Your task to perform on an android device: turn on javascript in the chrome app Image 0: 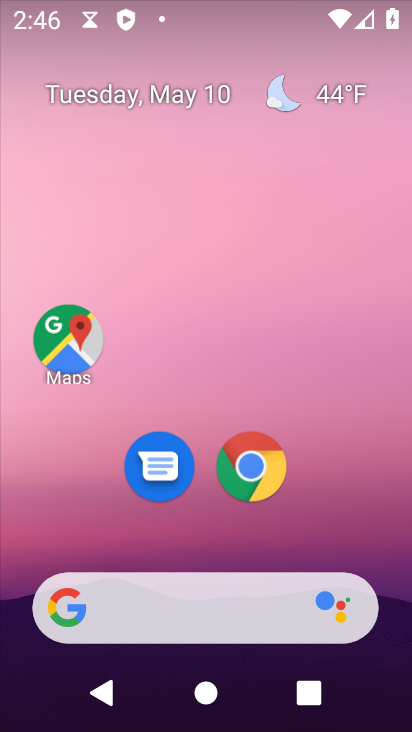
Step 0: click (252, 462)
Your task to perform on an android device: turn on javascript in the chrome app Image 1: 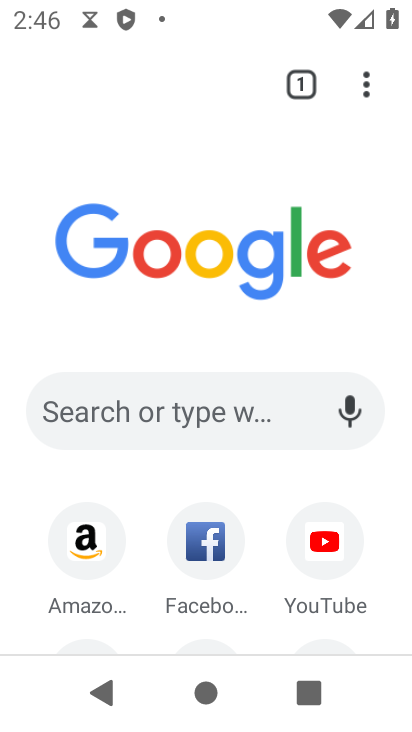
Step 1: click (368, 84)
Your task to perform on an android device: turn on javascript in the chrome app Image 2: 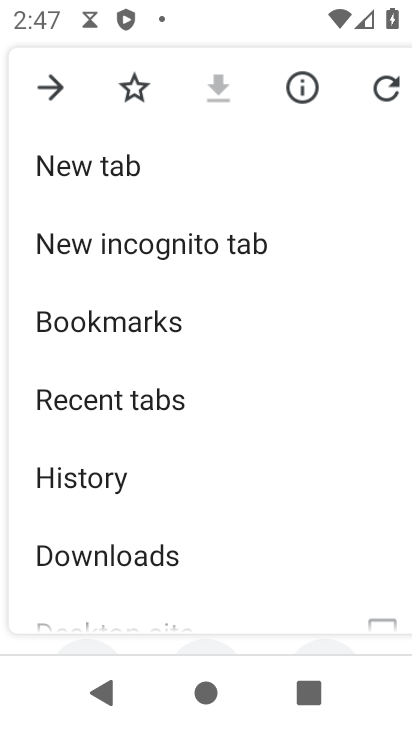
Step 2: drag from (143, 517) to (182, 336)
Your task to perform on an android device: turn on javascript in the chrome app Image 3: 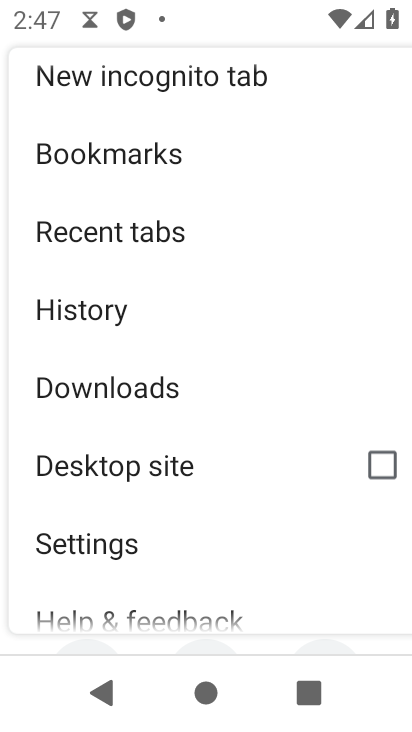
Step 3: drag from (116, 511) to (186, 332)
Your task to perform on an android device: turn on javascript in the chrome app Image 4: 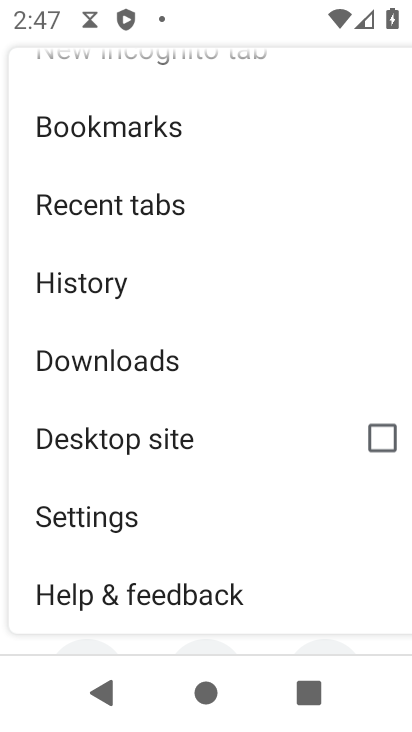
Step 4: click (86, 516)
Your task to perform on an android device: turn on javascript in the chrome app Image 5: 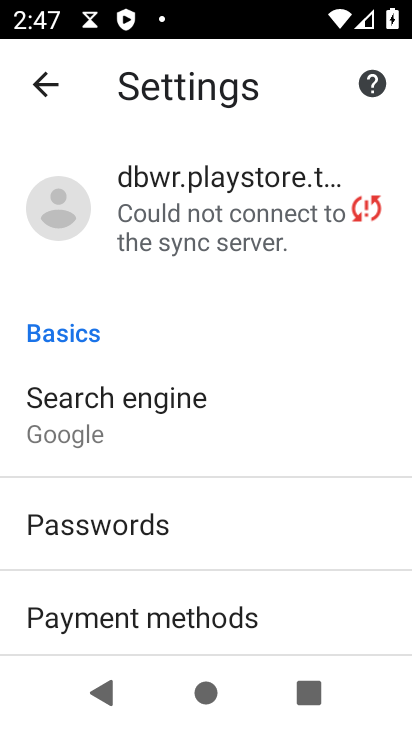
Step 5: drag from (163, 599) to (265, 424)
Your task to perform on an android device: turn on javascript in the chrome app Image 6: 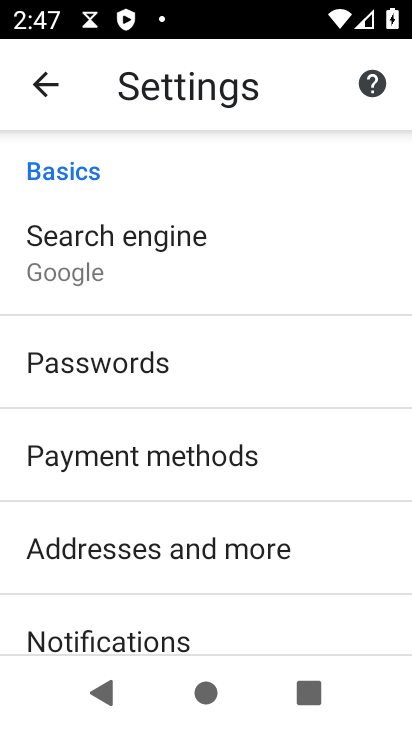
Step 6: drag from (165, 584) to (277, 407)
Your task to perform on an android device: turn on javascript in the chrome app Image 7: 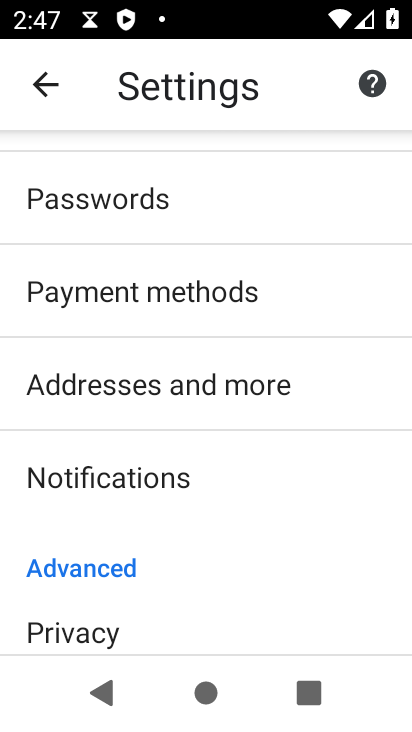
Step 7: drag from (101, 544) to (169, 417)
Your task to perform on an android device: turn on javascript in the chrome app Image 8: 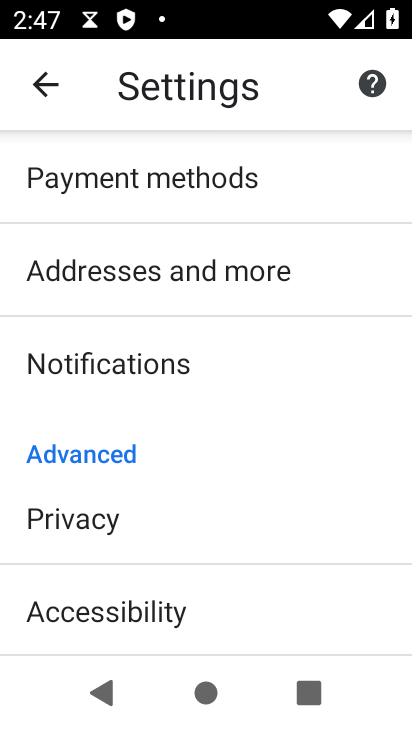
Step 8: drag from (103, 571) to (220, 395)
Your task to perform on an android device: turn on javascript in the chrome app Image 9: 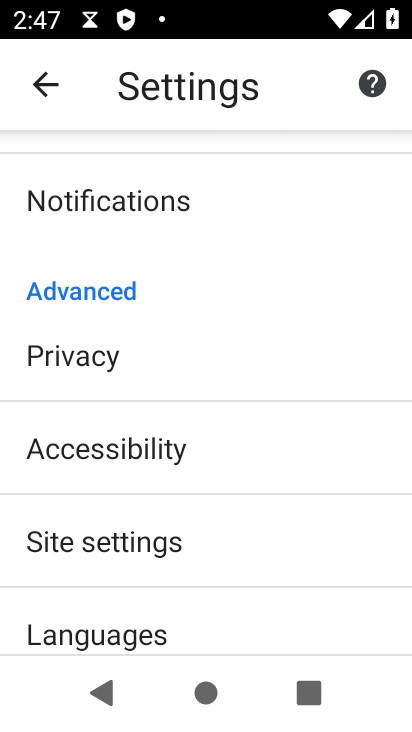
Step 9: click (106, 533)
Your task to perform on an android device: turn on javascript in the chrome app Image 10: 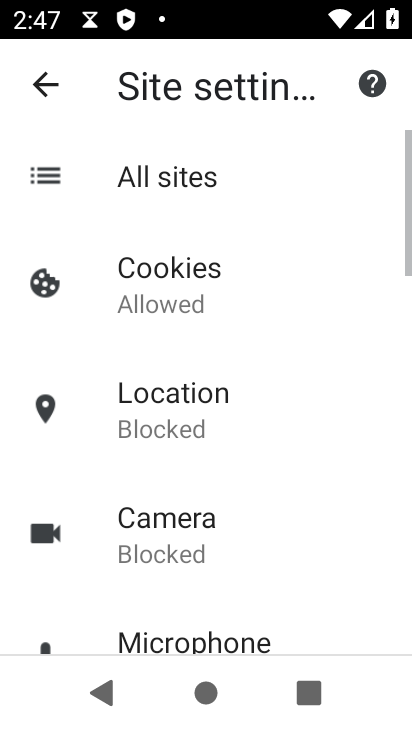
Step 10: drag from (117, 595) to (182, 450)
Your task to perform on an android device: turn on javascript in the chrome app Image 11: 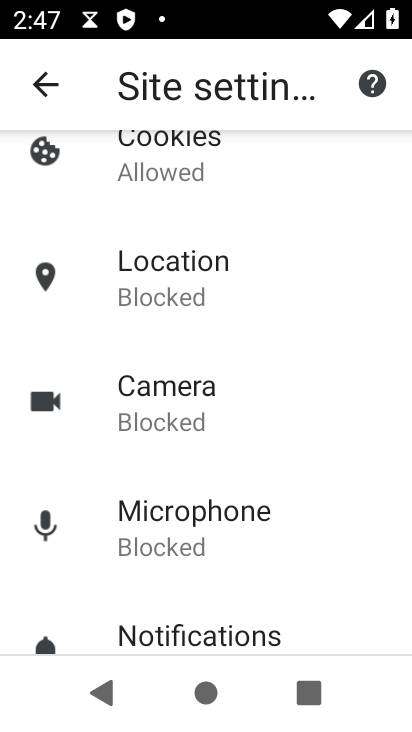
Step 11: drag from (151, 581) to (245, 405)
Your task to perform on an android device: turn on javascript in the chrome app Image 12: 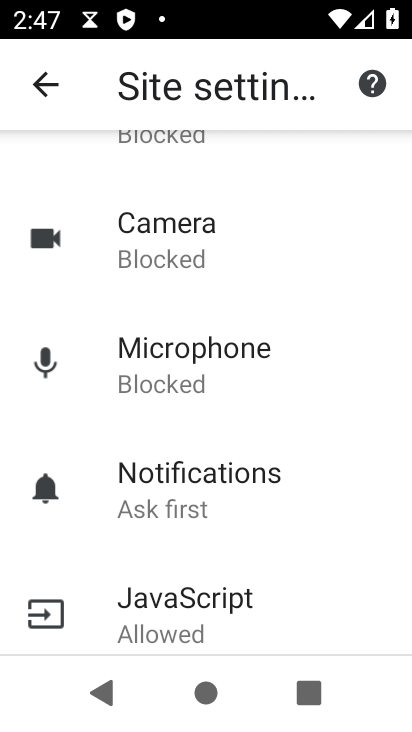
Step 12: click (154, 592)
Your task to perform on an android device: turn on javascript in the chrome app Image 13: 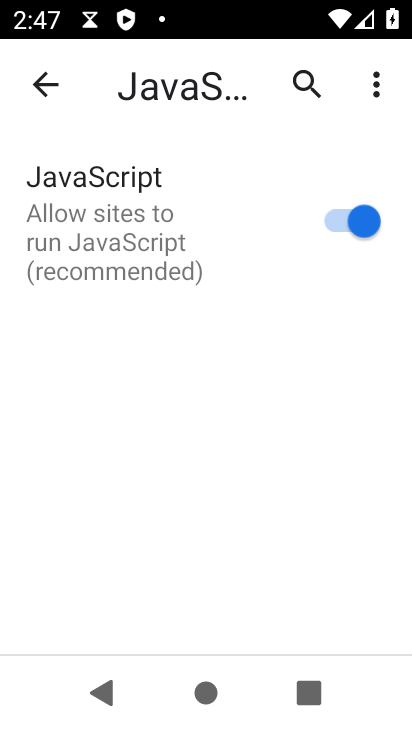
Step 13: task complete